Your task to perform on an android device: open chrome and create a bookmark for the current page Image 0: 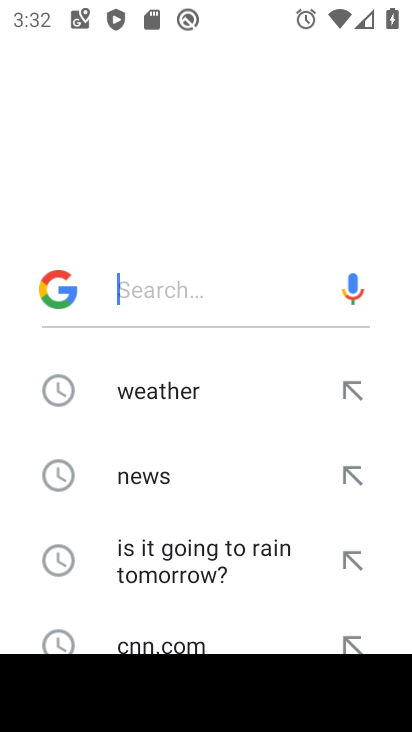
Step 0: press home button
Your task to perform on an android device: open chrome and create a bookmark for the current page Image 1: 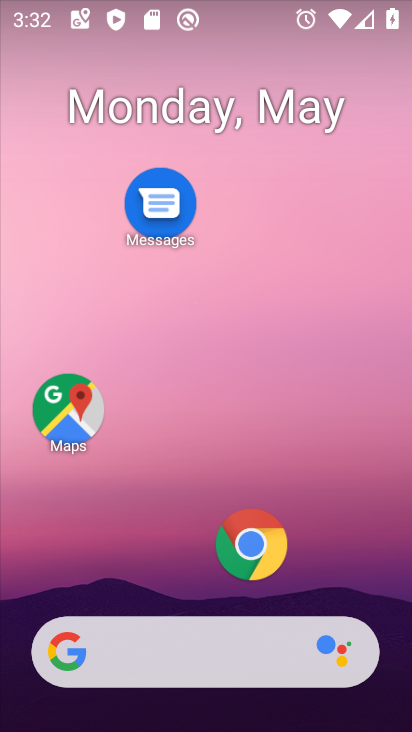
Step 1: click (248, 549)
Your task to perform on an android device: open chrome and create a bookmark for the current page Image 2: 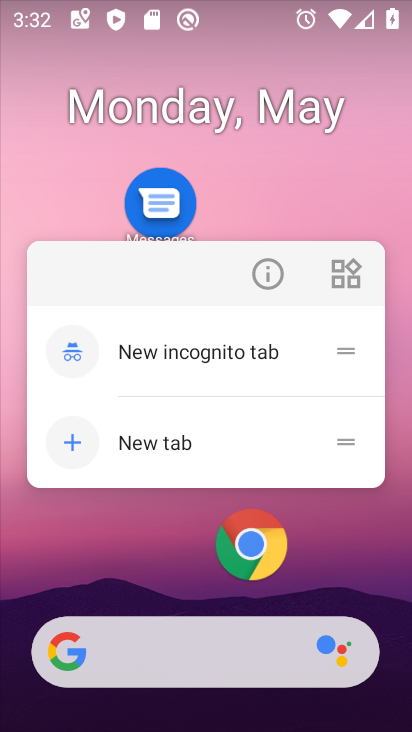
Step 2: click (248, 549)
Your task to perform on an android device: open chrome and create a bookmark for the current page Image 3: 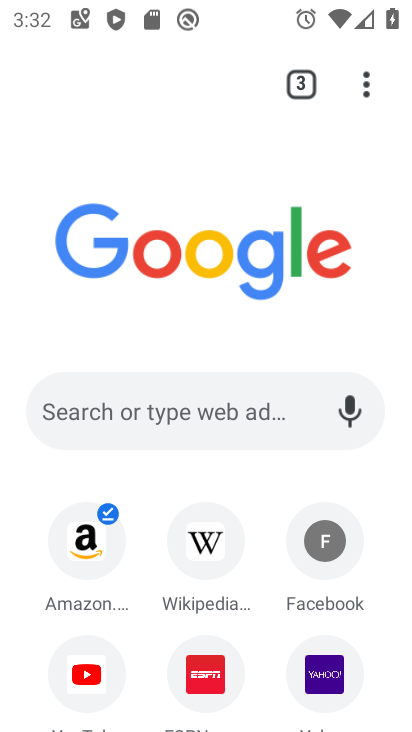
Step 3: click (368, 89)
Your task to perform on an android device: open chrome and create a bookmark for the current page Image 4: 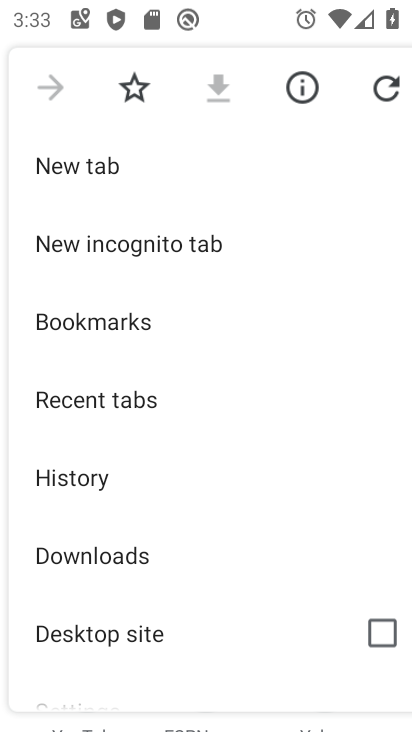
Step 4: click (134, 96)
Your task to perform on an android device: open chrome and create a bookmark for the current page Image 5: 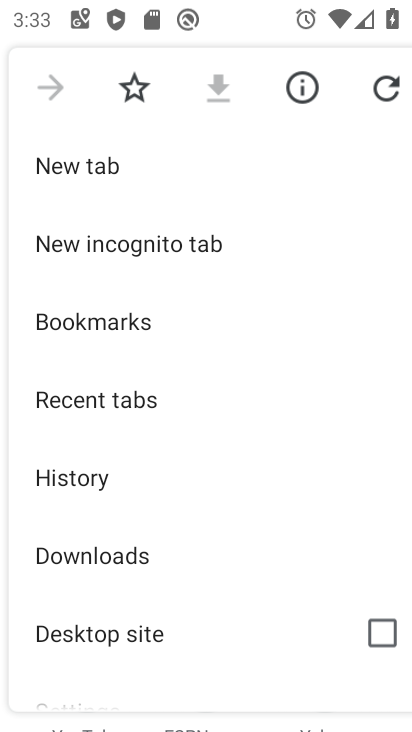
Step 5: task complete